Your task to perform on an android device: toggle pop-ups in chrome Image 0: 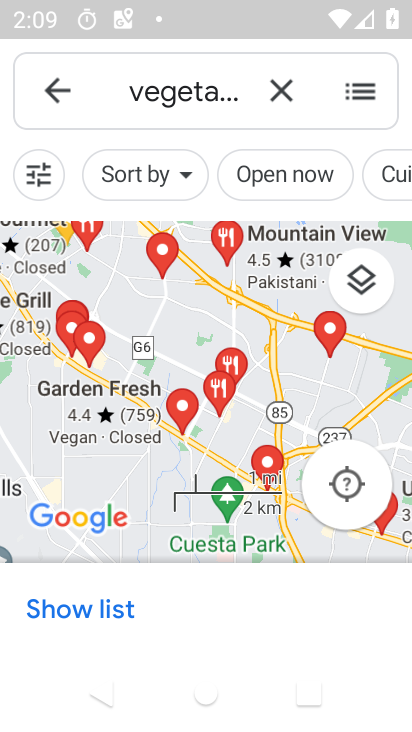
Step 0: press home button
Your task to perform on an android device: toggle pop-ups in chrome Image 1: 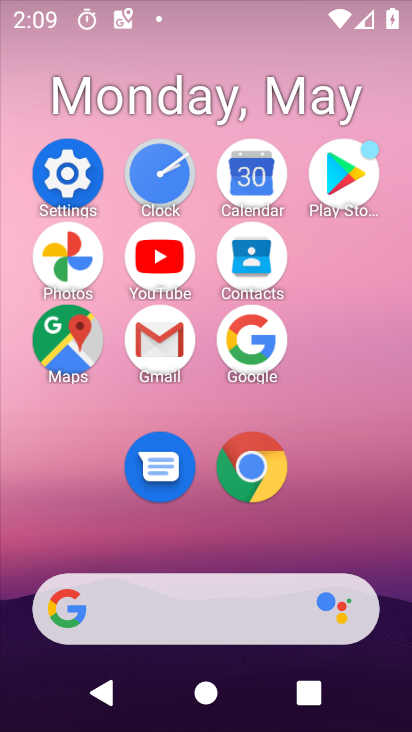
Step 1: click (276, 471)
Your task to perform on an android device: toggle pop-ups in chrome Image 2: 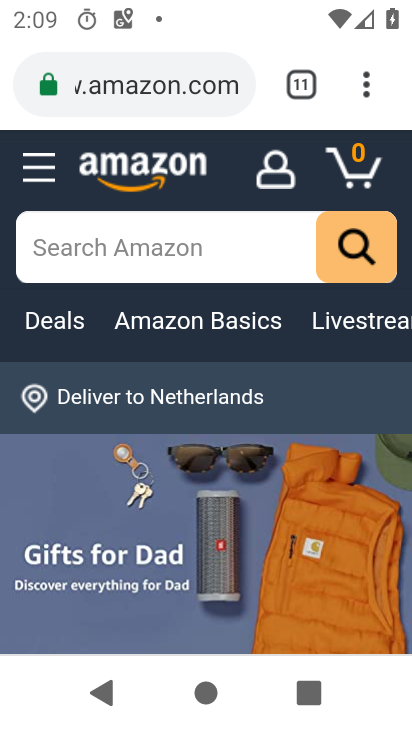
Step 2: click (369, 97)
Your task to perform on an android device: toggle pop-ups in chrome Image 3: 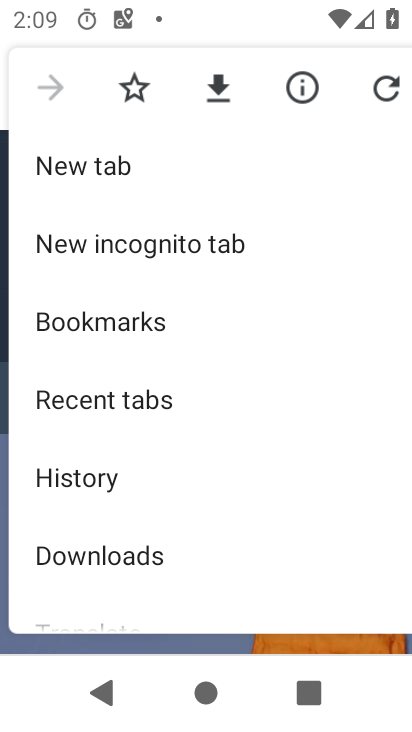
Step 3: drag from (269, 444) to (283, 139)
Your task to perform on an android device: toggle pop-ups in chrome Image 4: 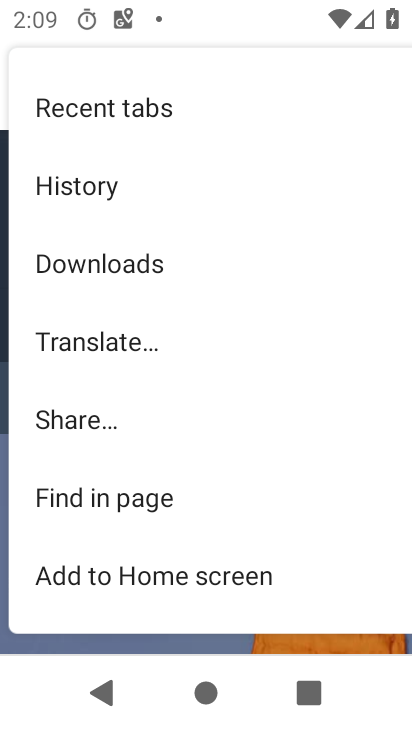
Step 4: drag from (117, 492) to (183, 148)
Your task to perform on an android device: toggle pop-ups in chrome Image 5: 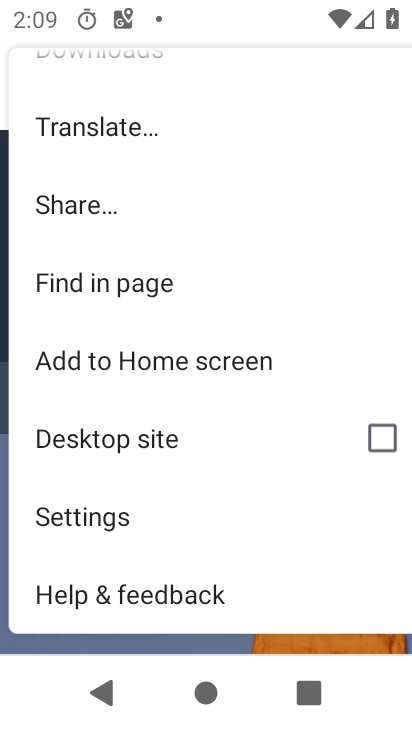
Step 5: click (112, 518)
Your task to perform on an android device: toggle pop-ups in chrome Image 6: 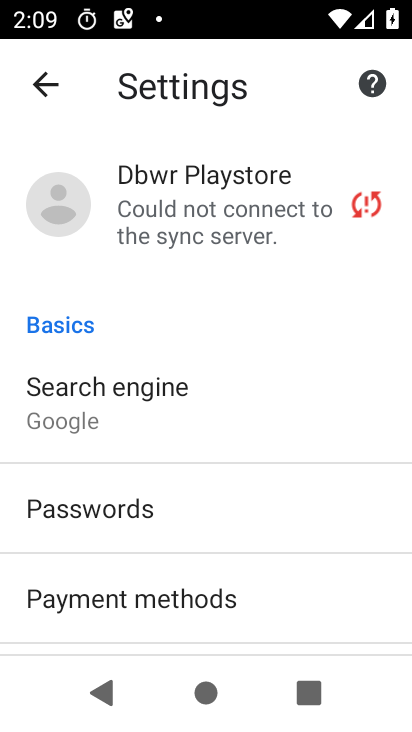
Step 6: drag from (224, 564) to (255, 210)
Your task to perform on an android device: toggle pop-ups in chrome Image 7: 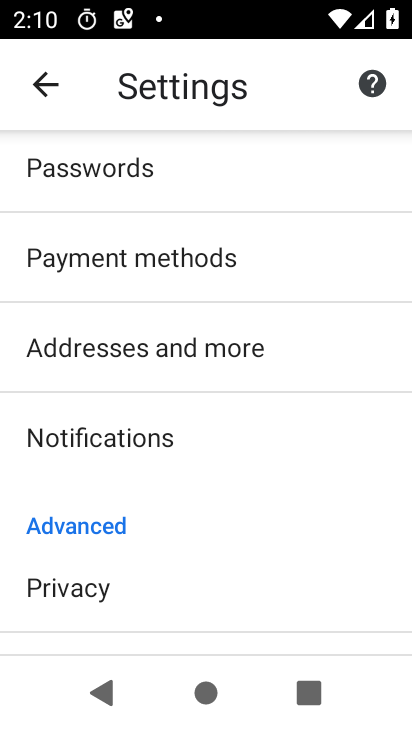
Step 7: drag from (249, 485) to (280, 239)
Your task to perform on an android device: toggle pop-ups in chrome Image 8: 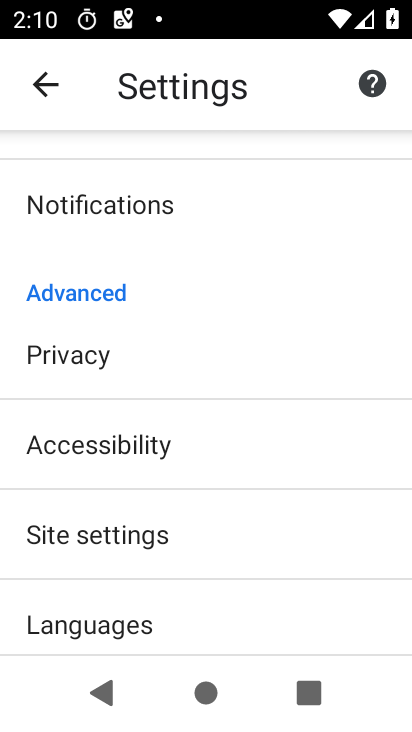
Step 8: drag from (228, 500) to (271, 263)
Your task to perform on an android device: toggle pop-ups in chrome Image 9: 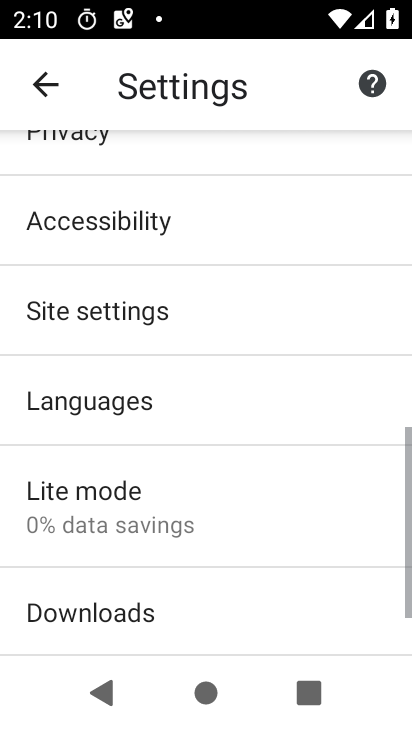
Step 9: click (220, 335)
Your task to perform on an android device: toggle pop-ups in chrome Image 10: 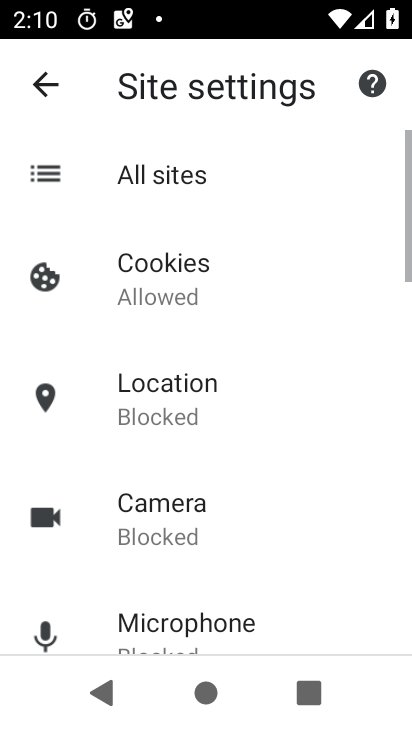
Step 10: drag from (232, 415) to (241, 273)
Your task to perform on an android device: toggle pop-ups in chrome Image 11: 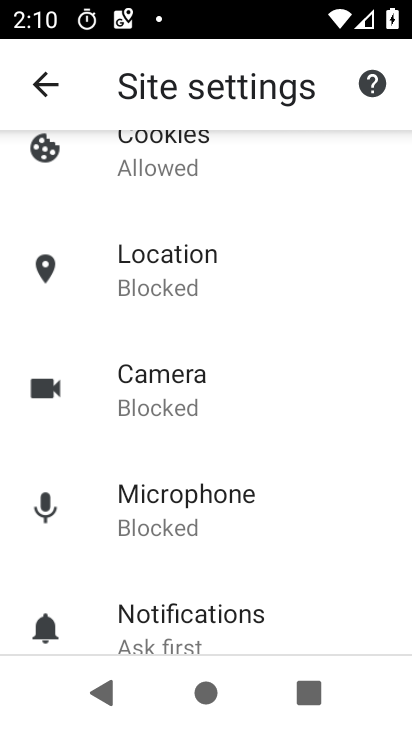
Step 11: drag from (231, 507) to (275, 249)
Your task to perform on an android device: toggle pop-ups in chrome Image 12: 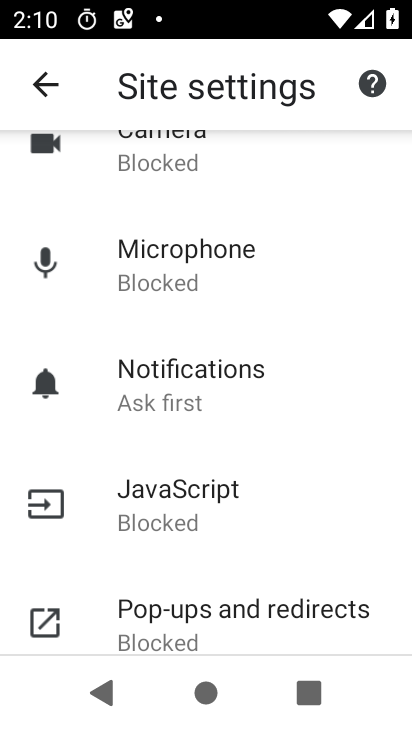
Step 12: click (185, 627)
Your task to perform on an android device: toggle pop-ups in chrome Image 13: 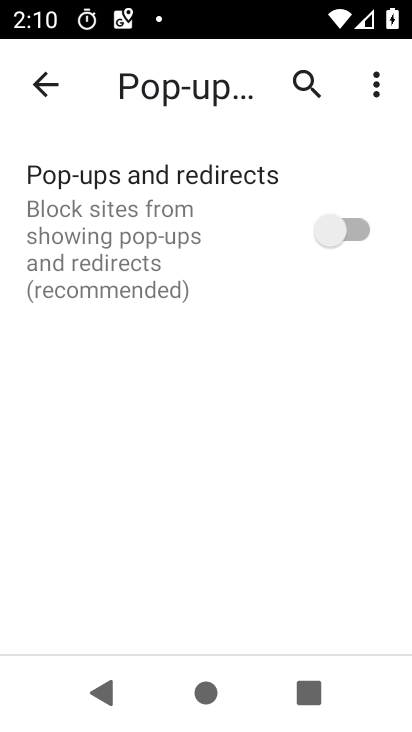
Step 13: click (348, 223)
Your task to perform on an android device: toggle pop-ups in chrome Image 14: 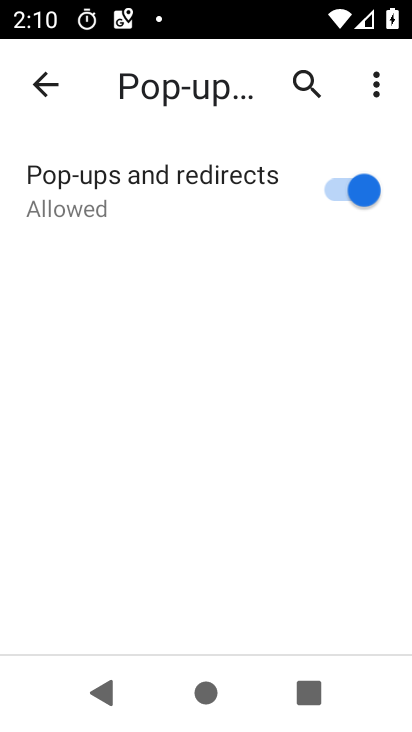
Step 14: task complete